Your task to perform on an android device: change notification settings in the gmail app Image 0: 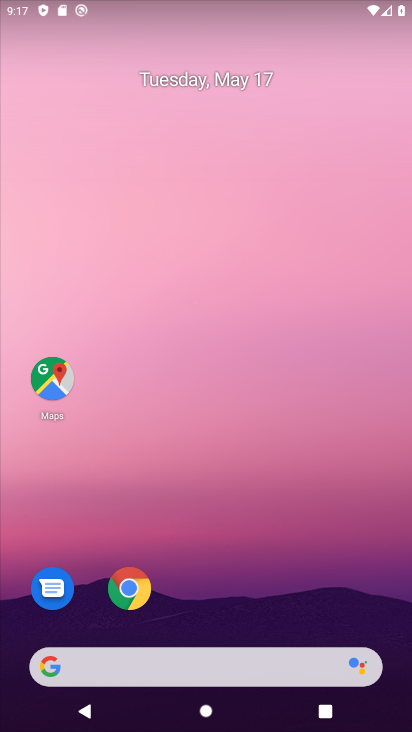
Step 0: drag from (206, 639) to (118, 13)
Your task to perform on an android device: change notification settings in the gmail app Image 1: 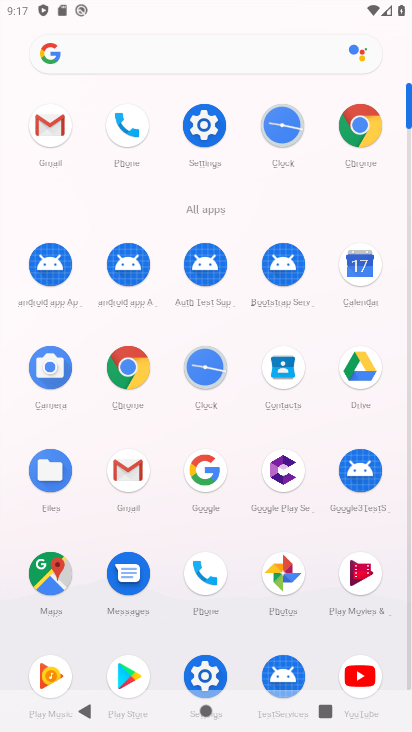
Step 1: click (120, 477)
Your task to perform on an android device: change notification settings in the gmail app Image 2: 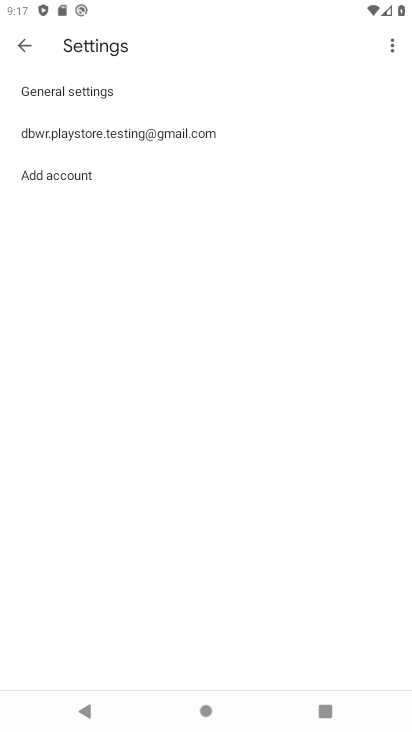
Step 2: click (33, 95)
Your task to perform on an android device: change notification settings in the gmail app Image 3: 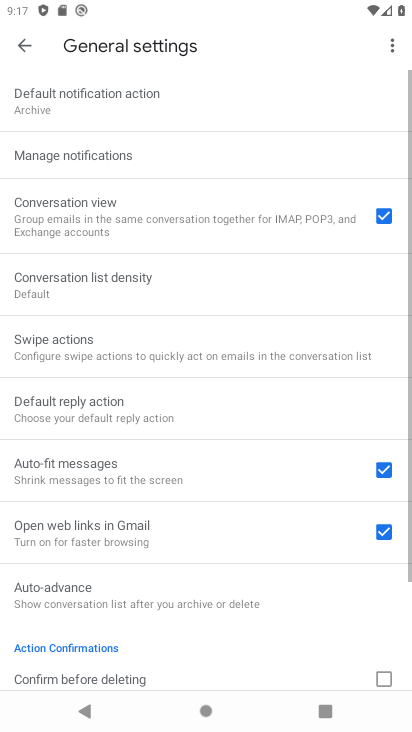
Step 3: click (102, 171)
Your task to perform on an android device: change notification settings in the gmail app Image 4: 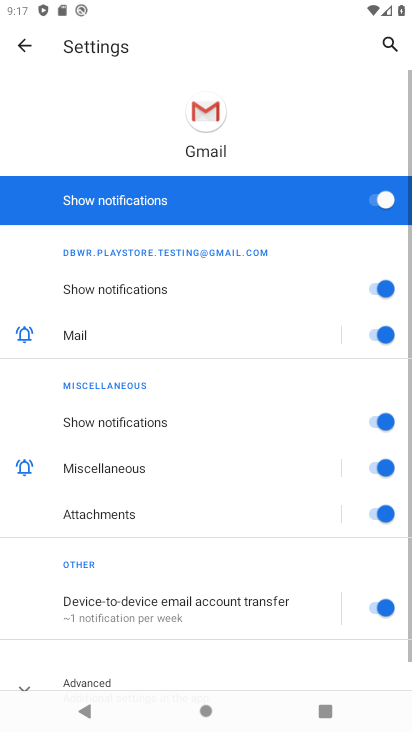
Step 4: click (376, 187)
Your task to perform on an android device: change notification settings in the gmail app Image 5: 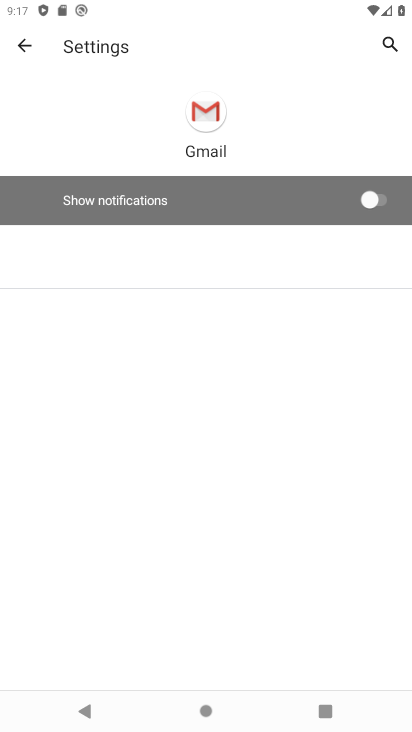
Step 5: task complete